Your task to perform on an android device: Open Maps and search for coffee Image 0: 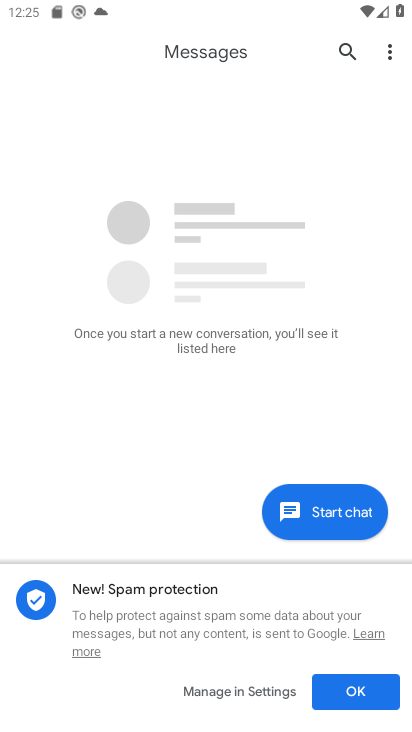
Step 0: click (385, 655)
Your task to perform on an android device: Open Maps and search for coffee Image 1: 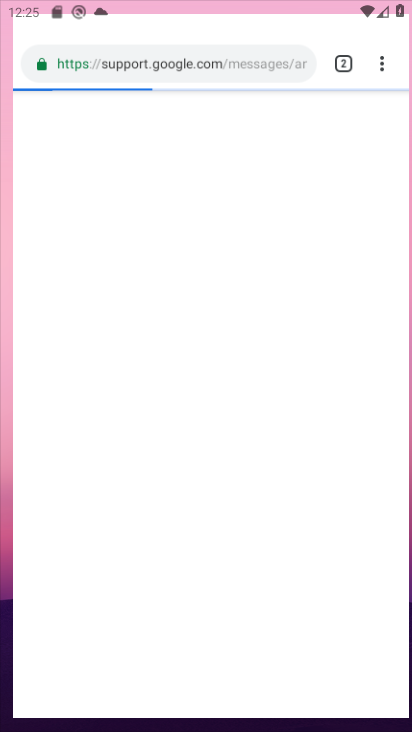
Step 1: press home button
Your task to perform on an android device: Open Maps and search for coffee Image 2: 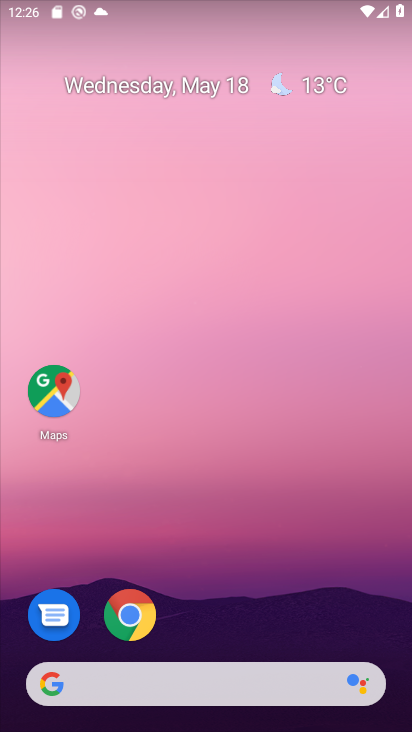
Step 2: click (56, 377)
Your task to perform on an android device: Open Maps and search for coffee Image 3: 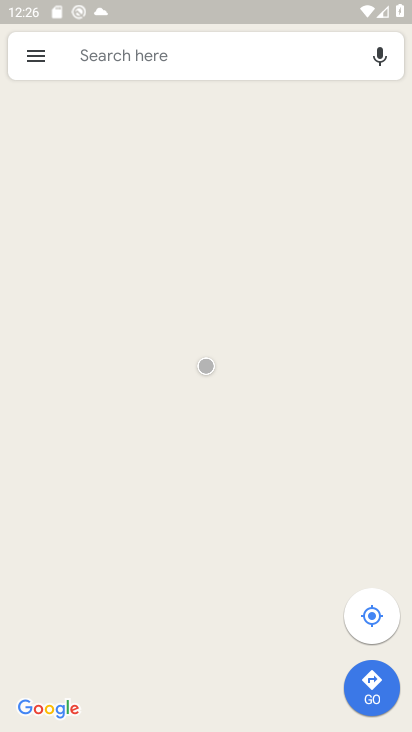
Step 3: click (100, 62)
Your task to perform on an android device: Open Maps and search for coffee Image 4: 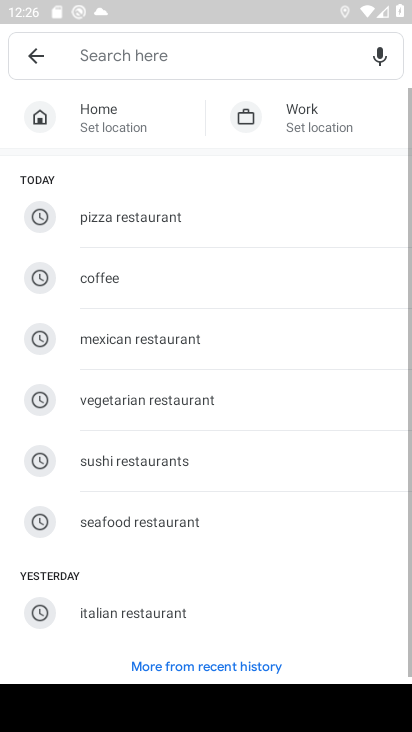
Step 4: type "coffee"
Your task to perform on an android device: Open Maps and search for coffee Image 5: 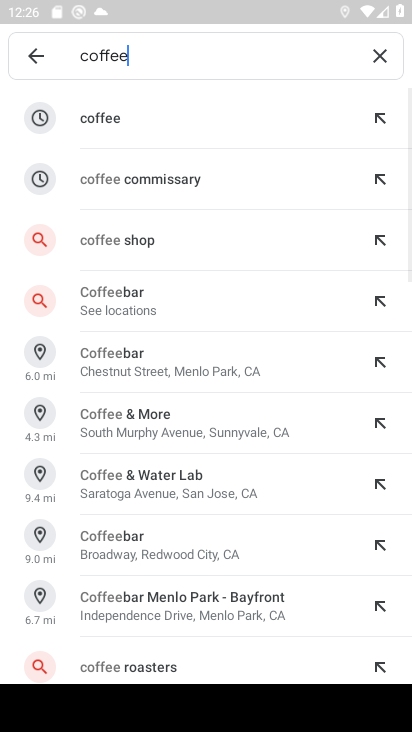
Step 5: click (93, 111)
Your task to perform on an android device: Open Maps and search for coffee Image 6: 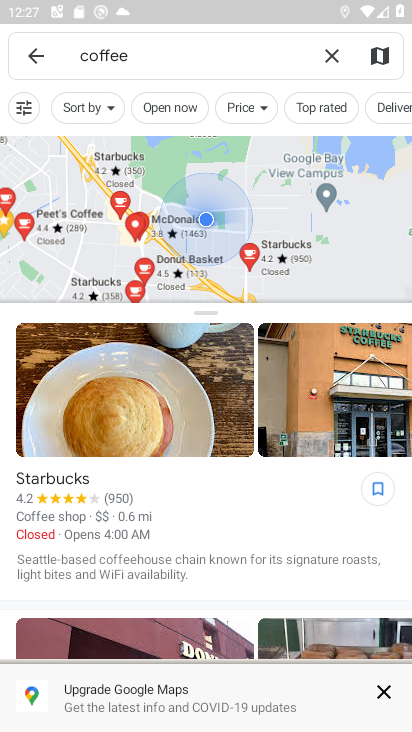
Step 6: task complete